Your task to perform on an android device: Open Yahoo.com Image 0: 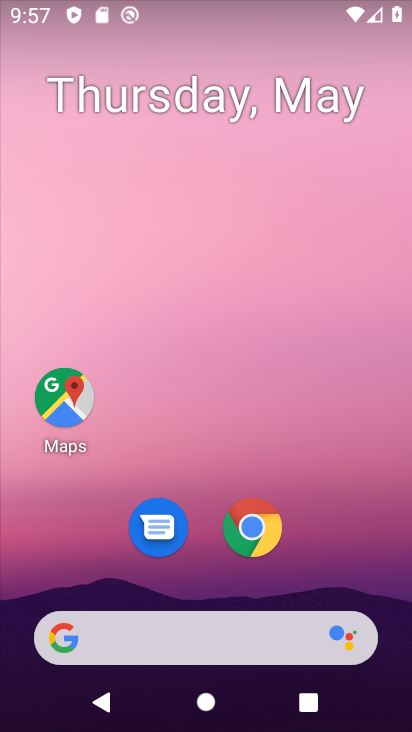
Step 0: click (257, 537)
Your task to perform on an android device: Open Yahoo.com Image 1: 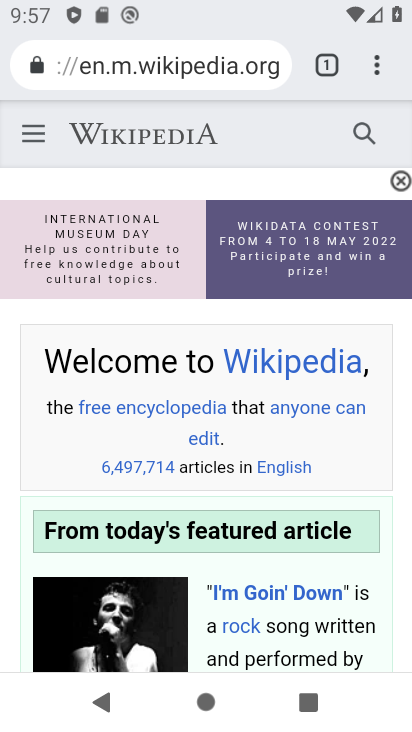
Step 1: press back button
Your task to perform on an android device: Open Yahoo.com Image 2: 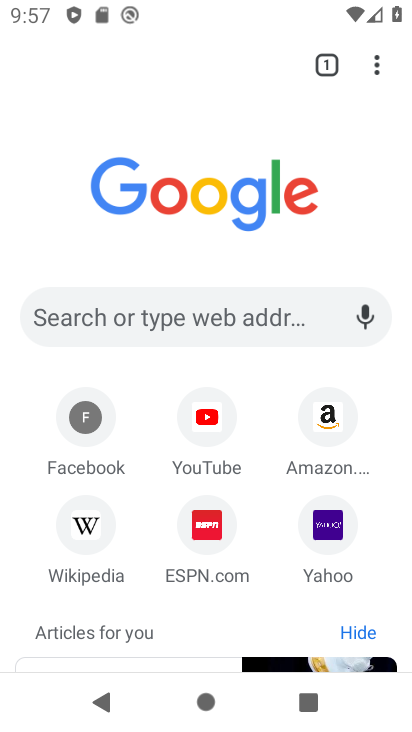
Step 2: click (327, 543)
Your task to perform on an android device: Open Yahoo.com Image 3: 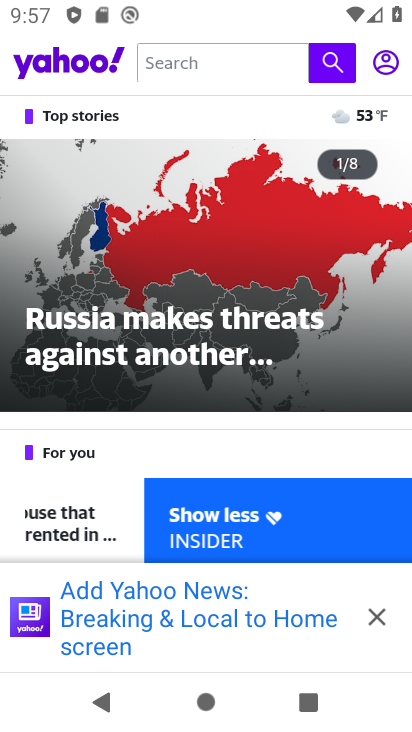
Step 3: task complete